Your task to perform on an android device: Open Chrome and go to settings Image 0: 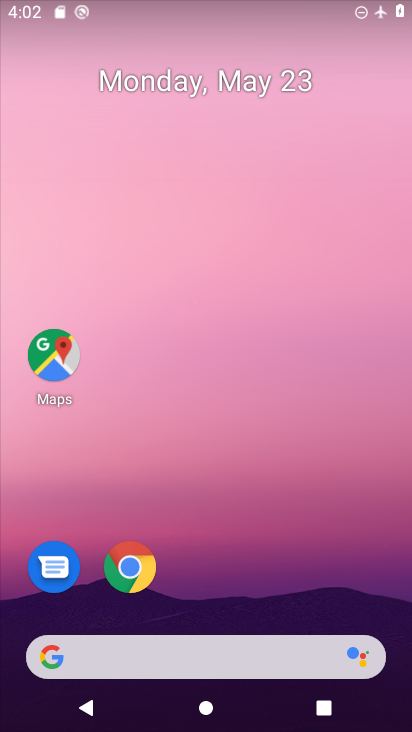
Step 0: click (126, 569)
Your task to perform on an android device: Open Chrome and go to settings Image 1: 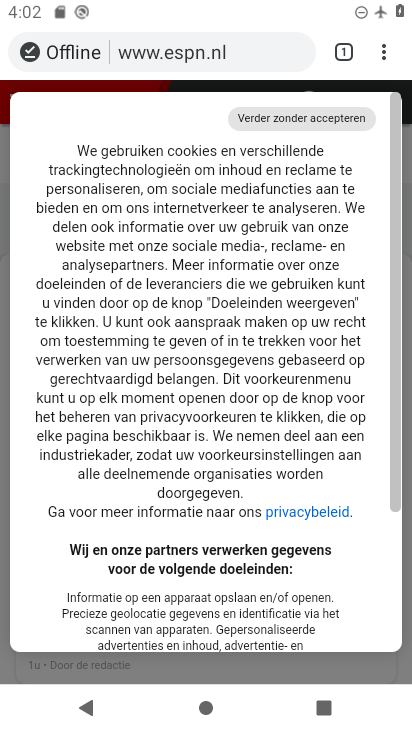
Step 1: click (375, 50)
Your task to perform on an android device: Open Chrome and go to settings Image 2: 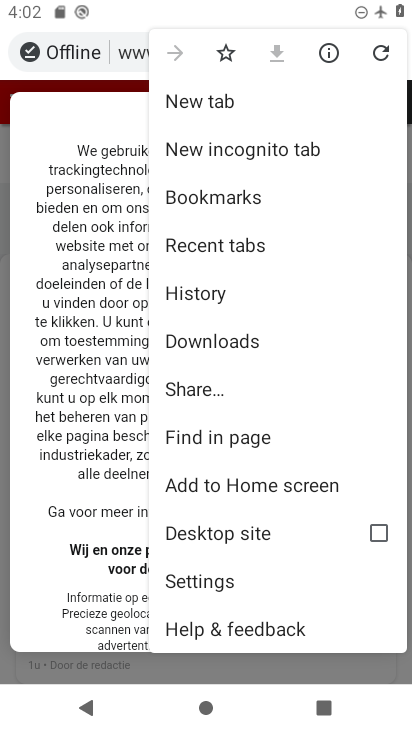
Step 2: click (206, 579)
Your task to perform on an android device: Open Chrome and go to settings Image 3: 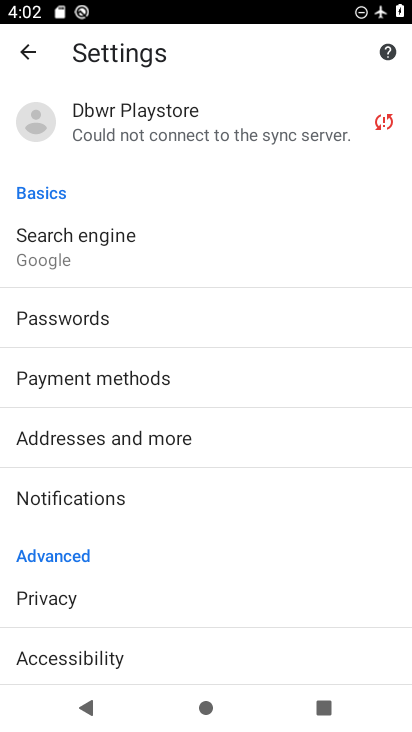
Step 3: task complete